Your task to perform on an android device: Search for Mexican restaurants on Maps Image 0: 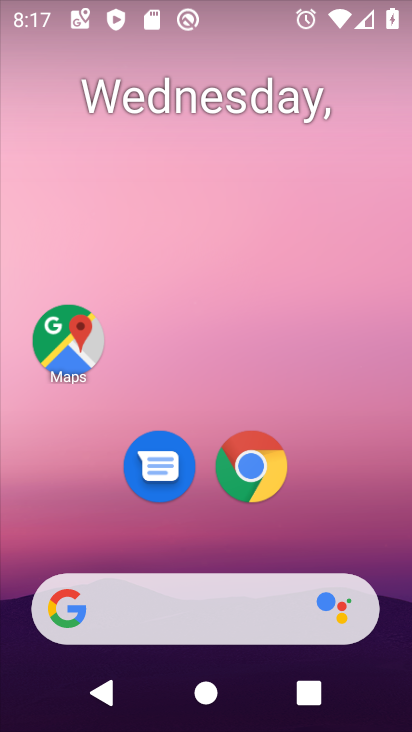
Step 0: drag from (315, 528) to (291, 63)
Your task to perform on an android device: Search for Mexican restaurants on Maps Image 1: 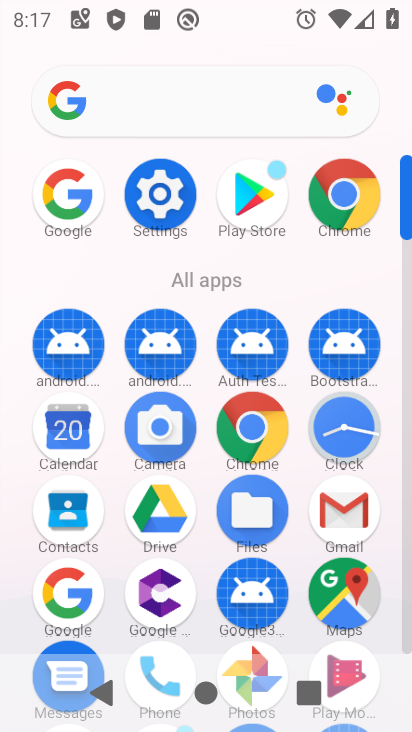
Step 1: click (335, 578)
Your task to perform on an android device: Search for Mexican restaurants on Maps Image 2: 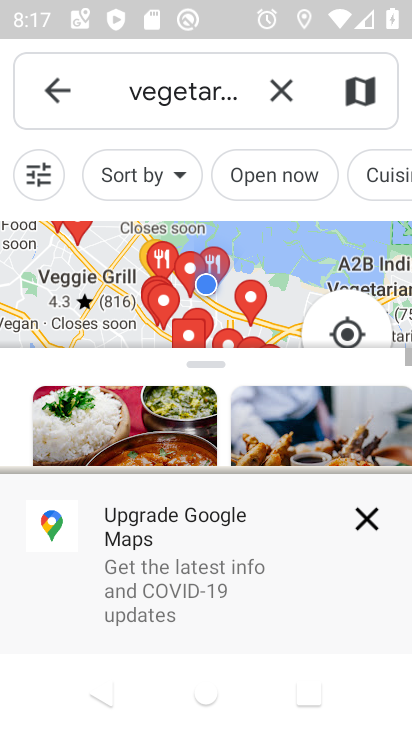
Step 2: click (274, 97)
Your task to perform on an android device: Search for Mexican restaurants on Maps Image 3: 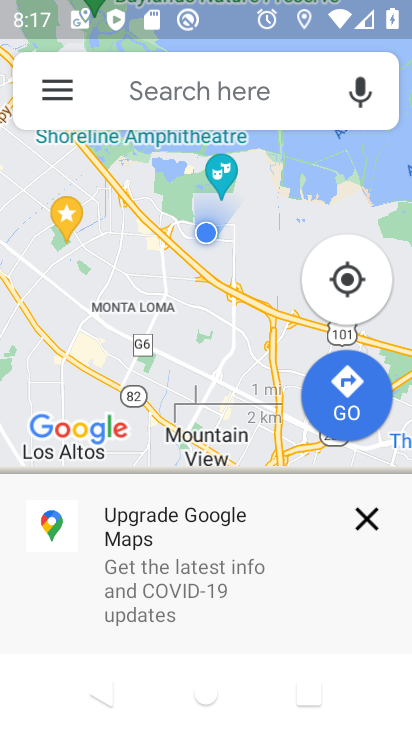
Step 3: click (198, 96)
Your task to perform on an android device: Search for Mexican restaurants on Maps Image 4: 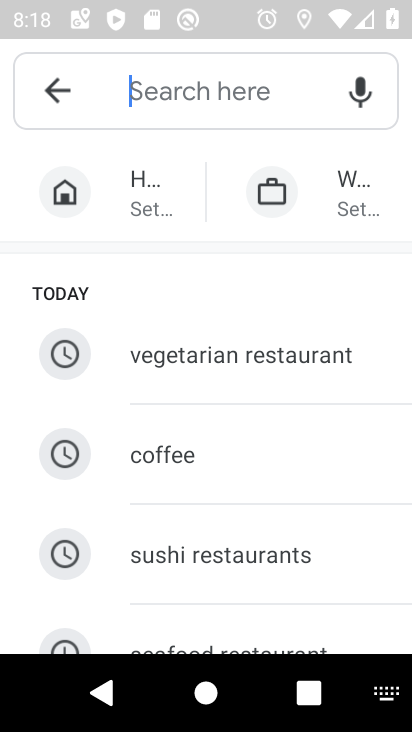
Step 4: type "mexican restaurants"
Your task to perform on an android device: Search for Mexican restaurants on Maps Image 5: 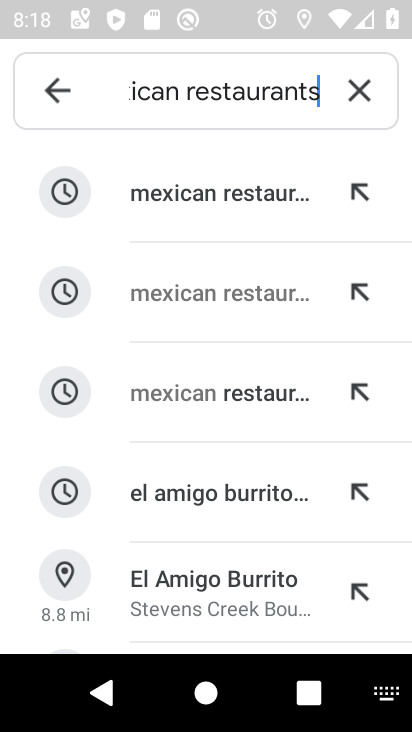
Step 5: click (226, 288)
Your task to perform on an android device: Search for Mexican restaurants on Maps Image 6: 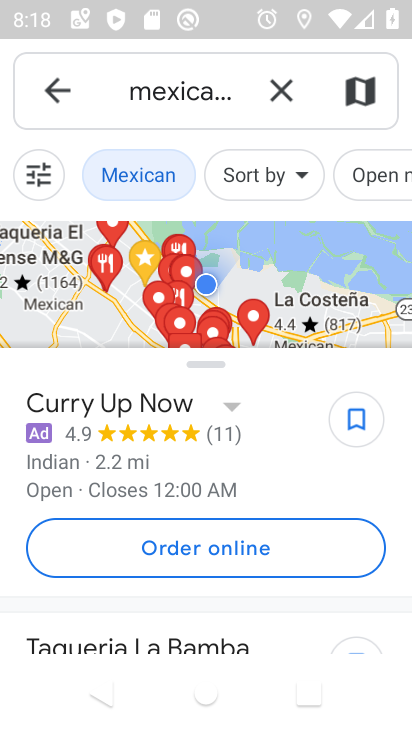
Step 6: task complete